Your task to perform on an android device: Is it going to rain tomorrow? Image 0: 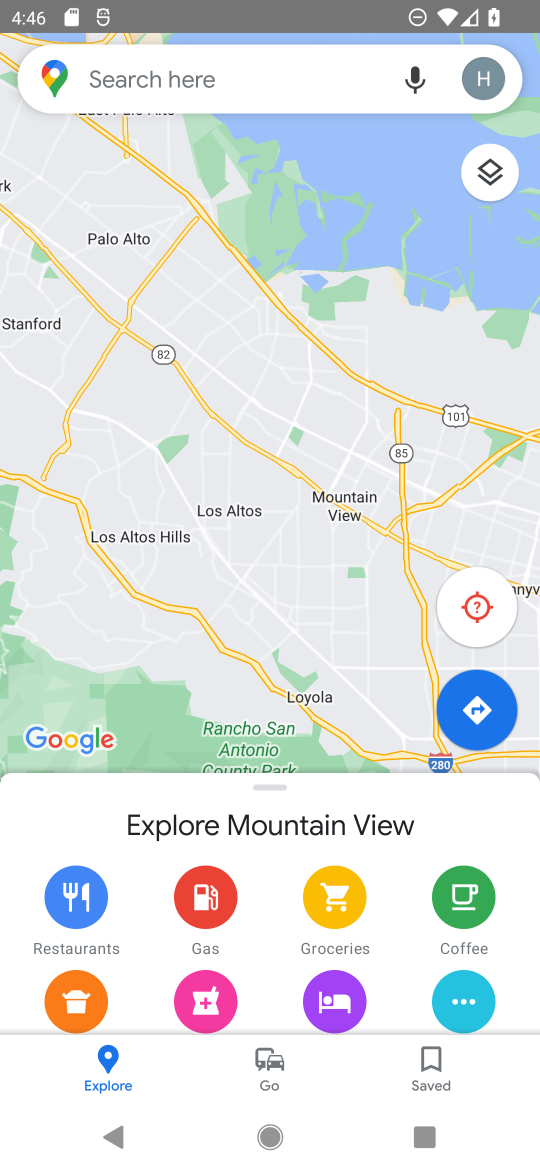
Step 0: press home button
Your task to perform on an android device: Is it going to rain tomorrow? Image 1: 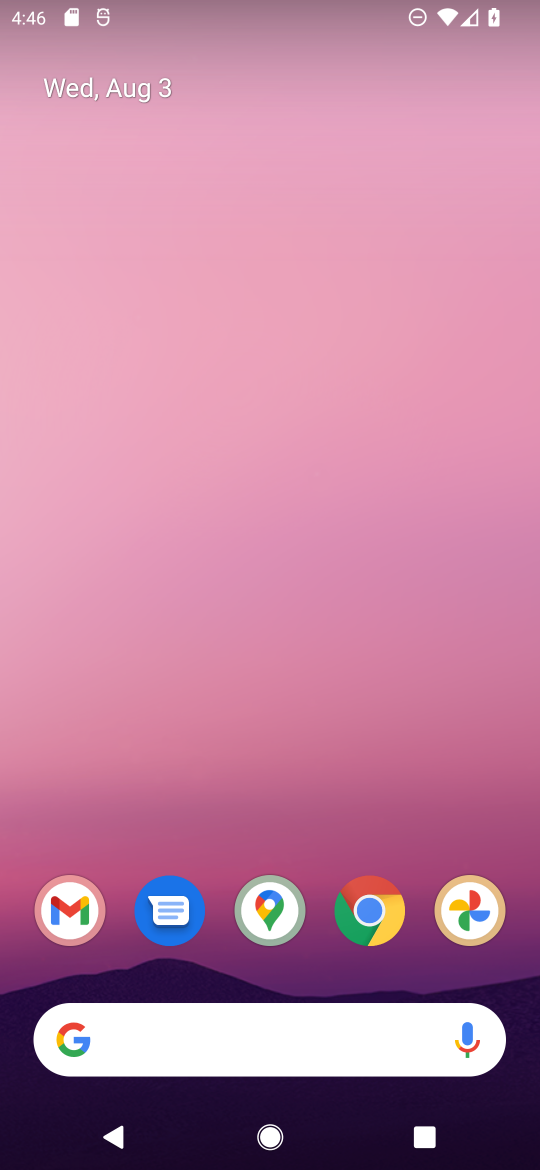
Step 1: click (186, 1022)
Your task to perform on an android device: Is it going to rain tomorrow? Image 2: 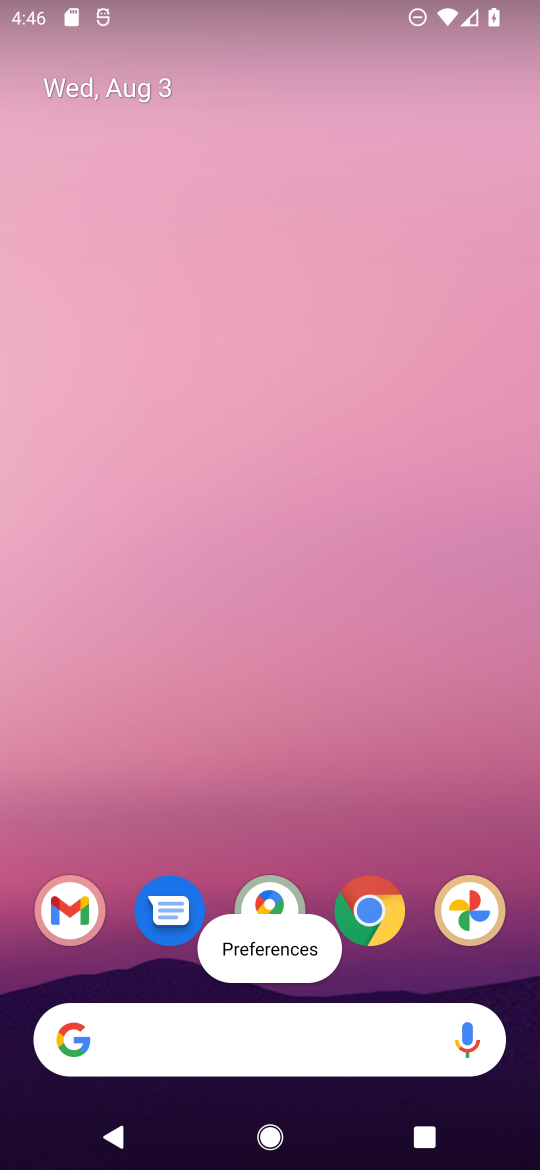
Step 2: click (156, 1046)
Your task to perform on an android device: Is it going to rain tomorrow? Image 3: 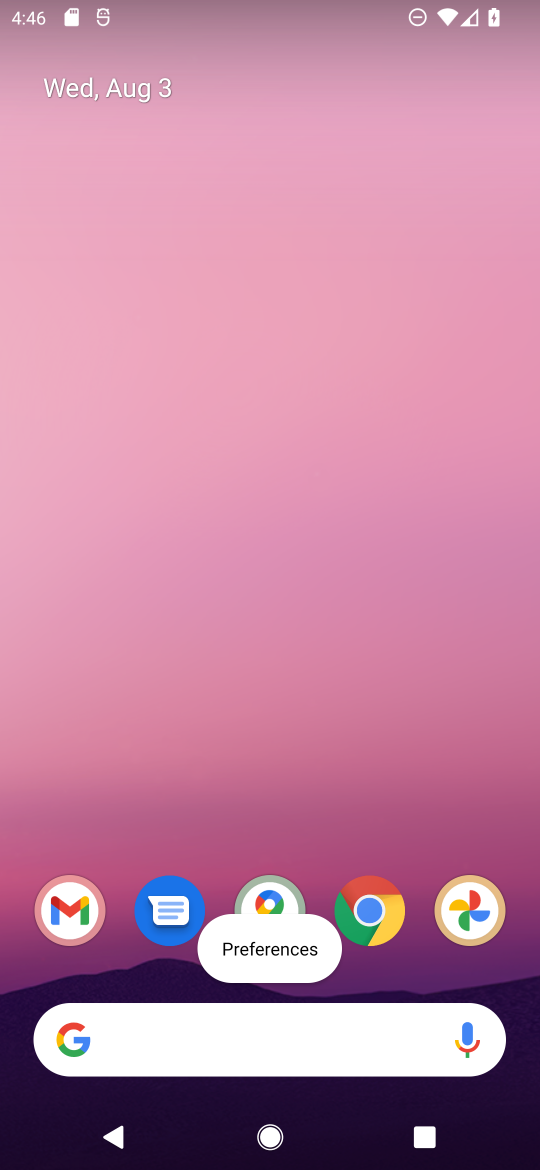
Step 3: click (134, 1049)
Your task to perform on an android device: Is it going to rain tomorrow? Image 4: 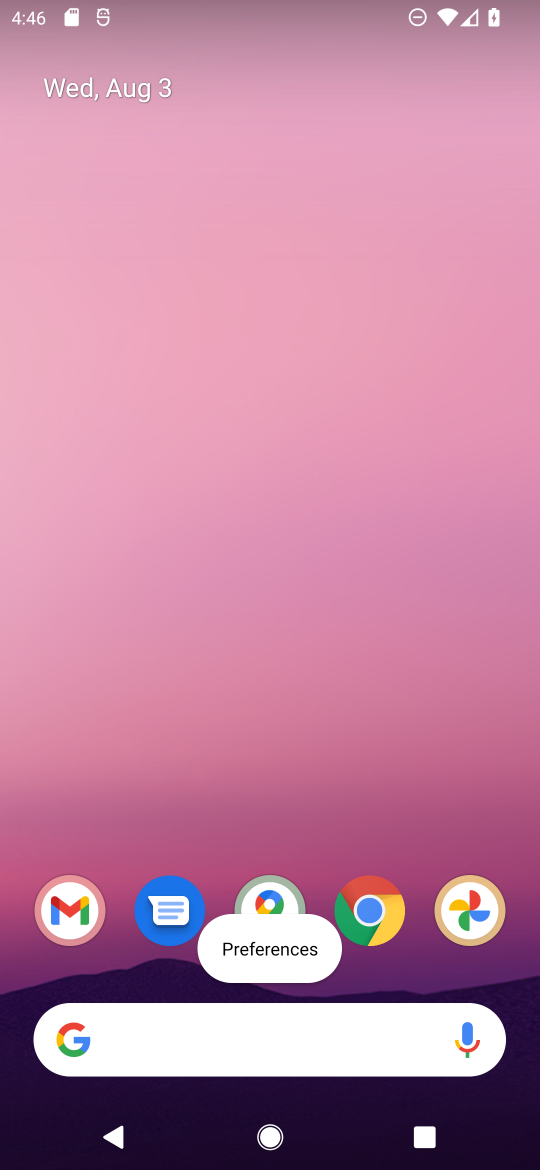
Step 4: click (132, 1025)
Your task to perform on an android device: Is it going to rain tomorrow? Image 5: 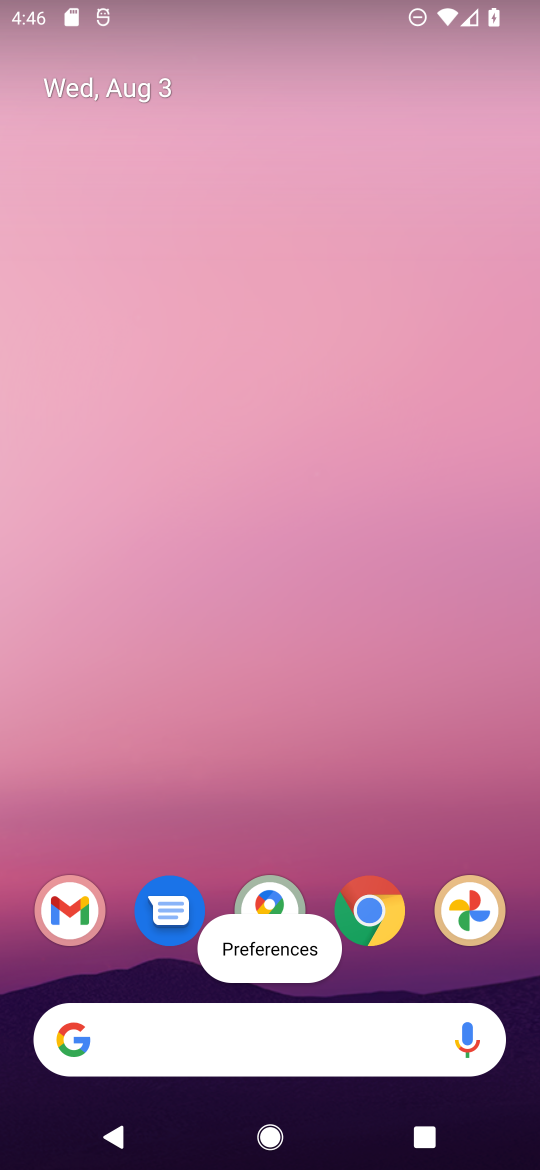
Step 5: click (156, 1048)
Your task to perform on an android device: Is it going to rain tomorrow? Image 6: 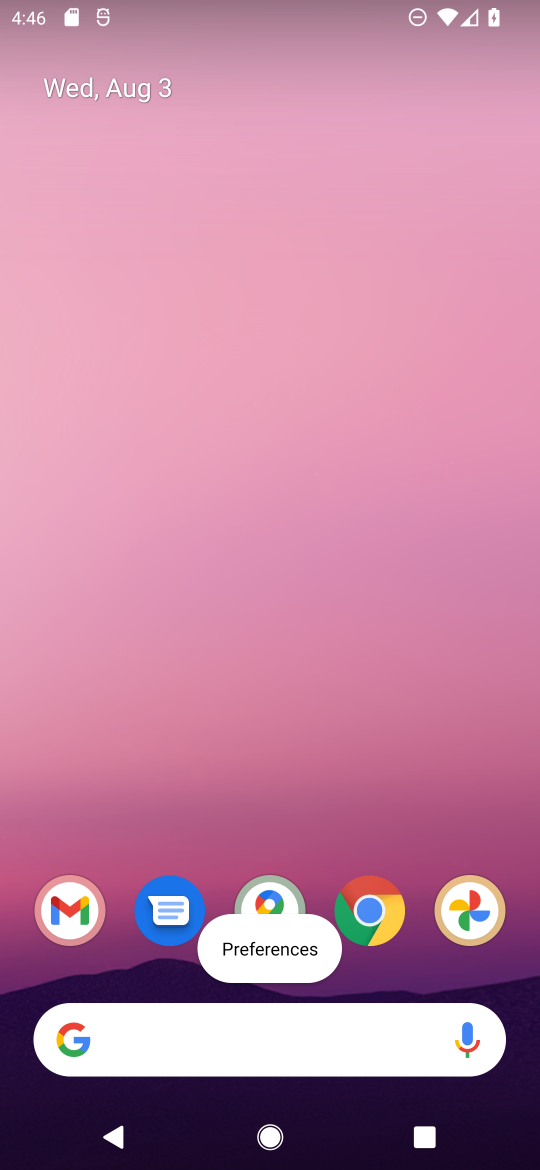
Step 6: task complete